Your task to perform on an android device: toggle data saver in the chrome app Image 0: 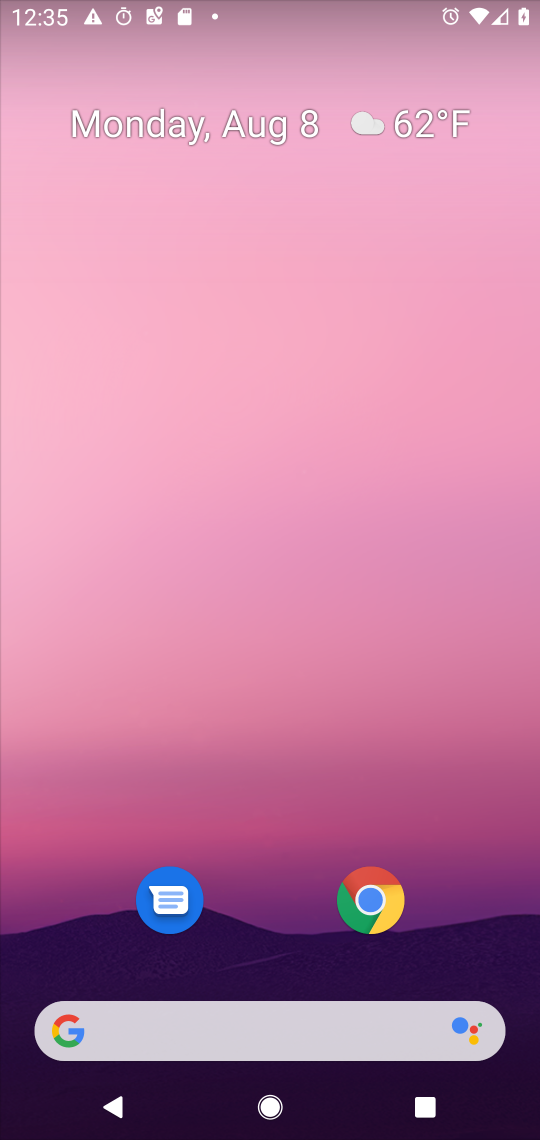
Step 0: drag from (276, 934) to (338, 267)
Your task to perform on an android device: toggle data saver in the chrome app Image 1: 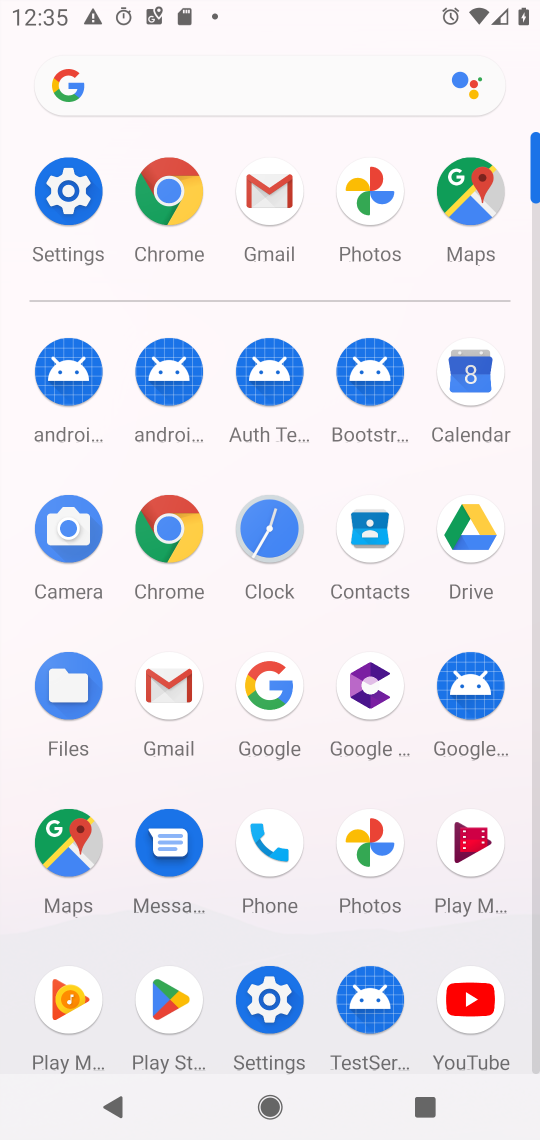
Step 1: click (284, 982)
Your task to perform on an android device: toggle data saver in the chrome app Image 2: 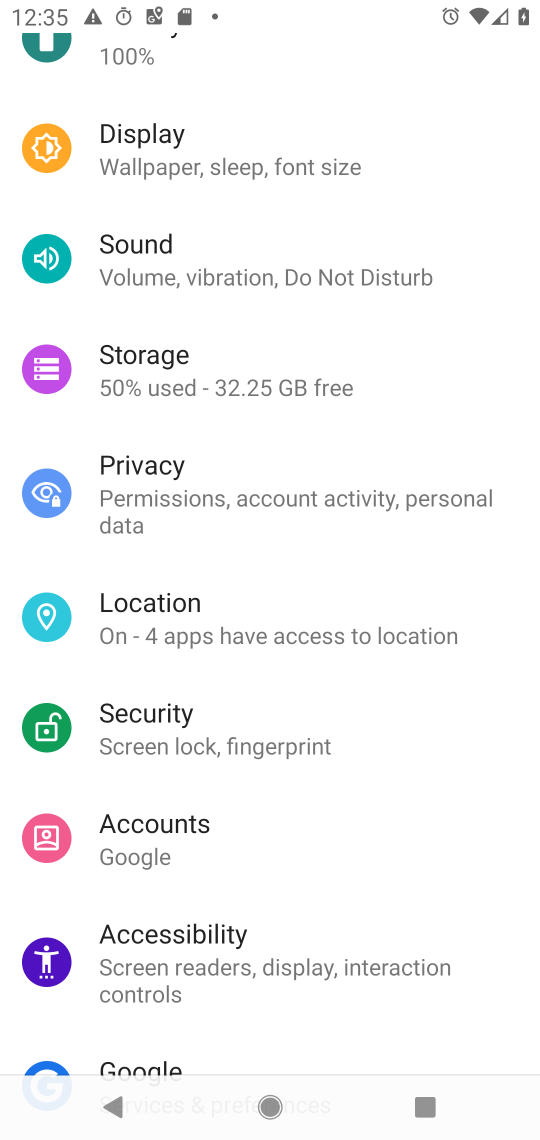
Step 2: press home button
Your task to perform on an android device: toggle data saver in the chrome app Image 3: 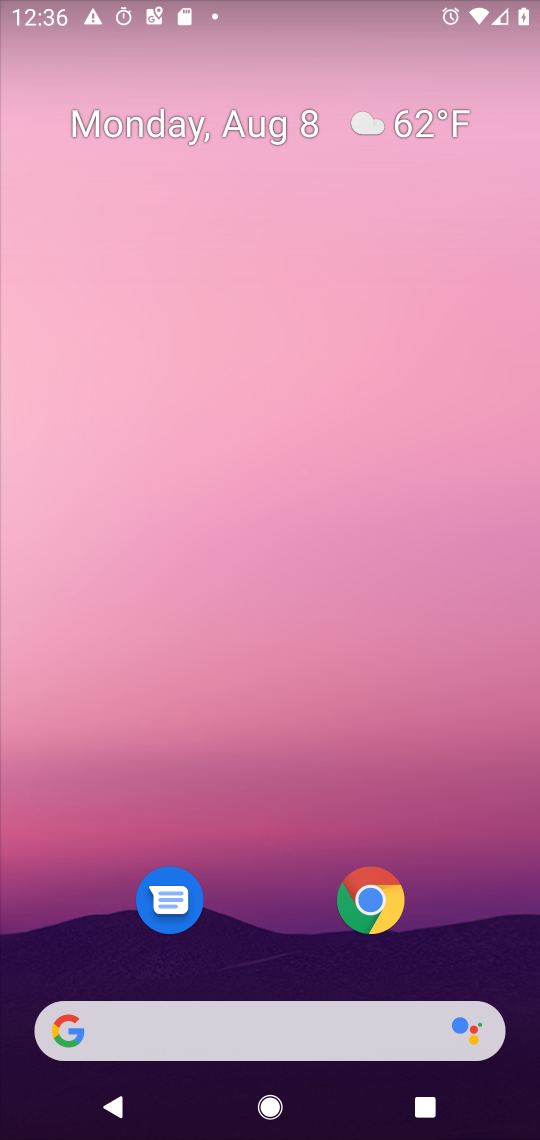
Step 3: click (360, 892)
Your task to perform on an android device: toggle data saver in the chrome app Image 4: 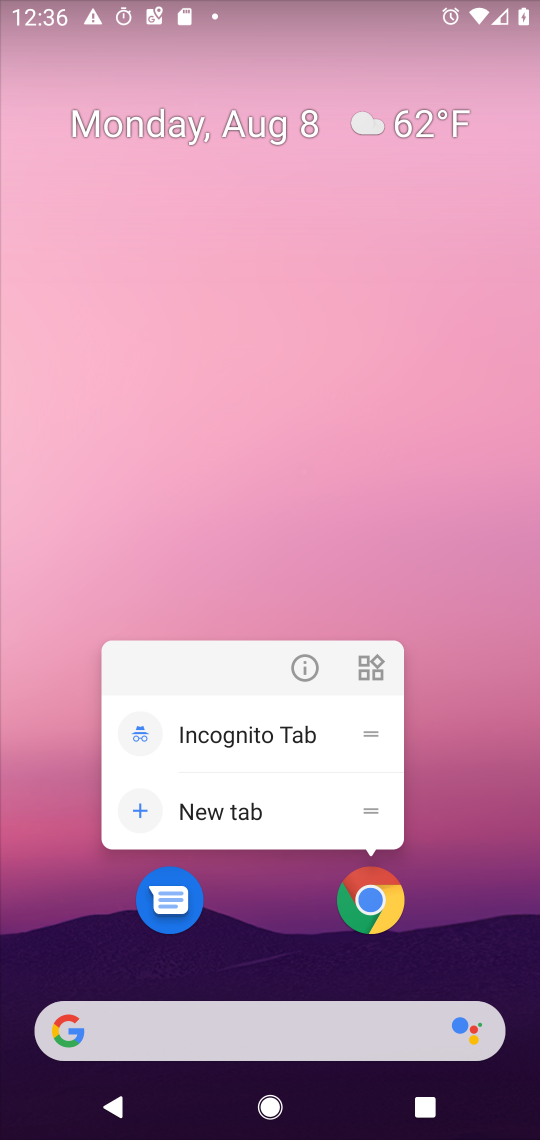
Step 4: click (417, 920)
Your task to perform on an android device: toggle data saver in the chrome app Image 5: 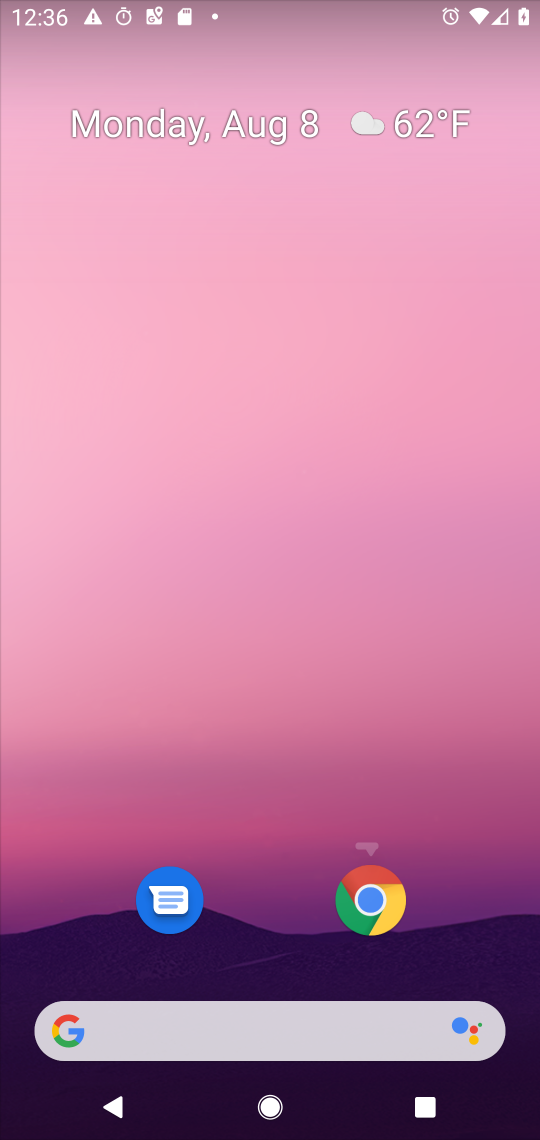
Step 5: drag from (453, 961) to (539, 130)
Your task to perform on an android device: toggle data saver in the chrome app Image 6: 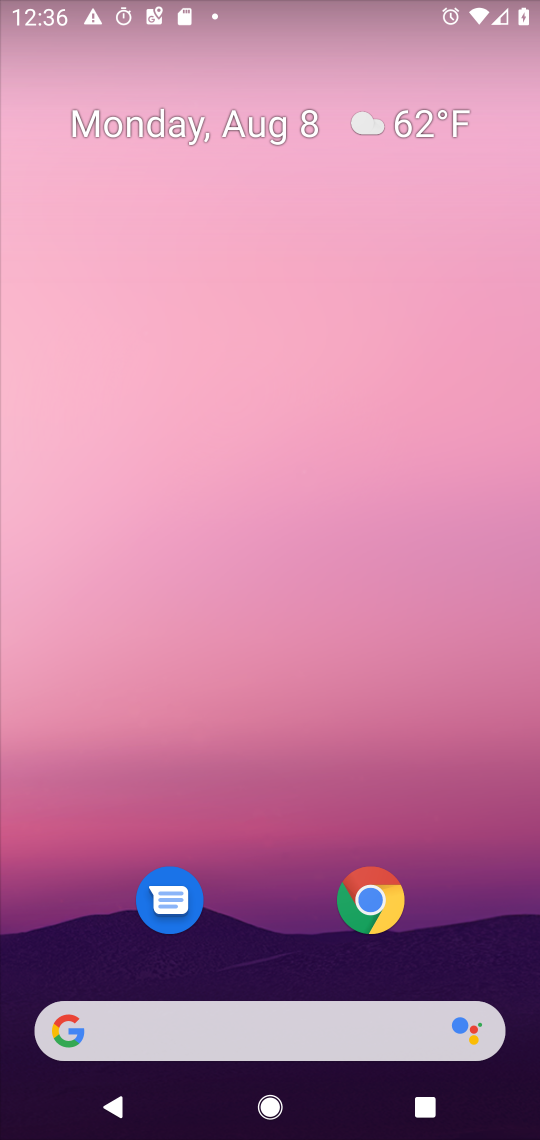
Step 6: drag from (450, 949) to (484, 44)
Your task to perform on an android device: toggle data saver in the chrome app Image 7: 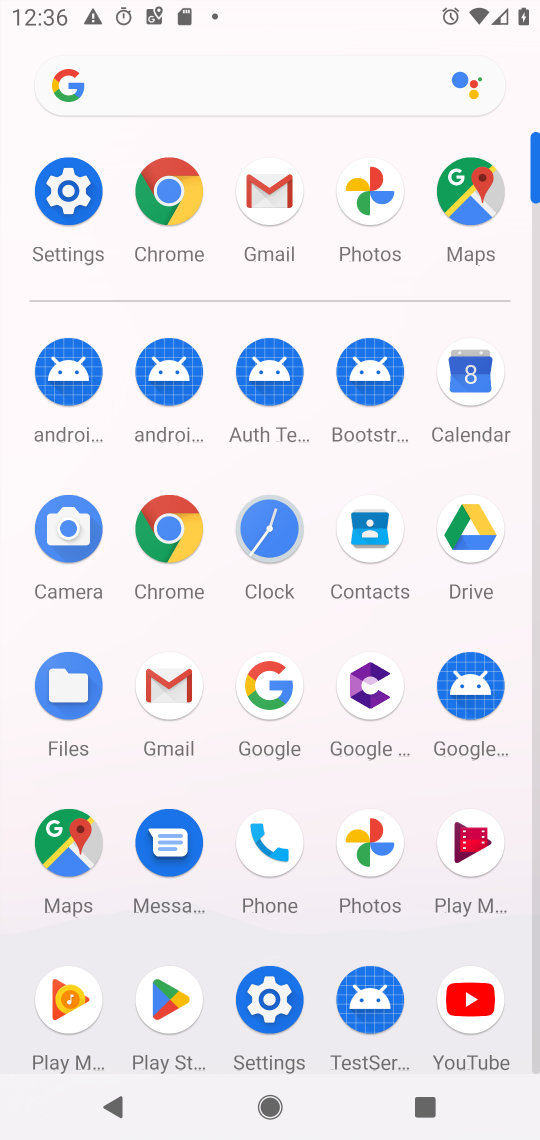
Step 7: click (166, 186)
Your task to perform on an android device: toggle data saver in the chrome app Image 8: 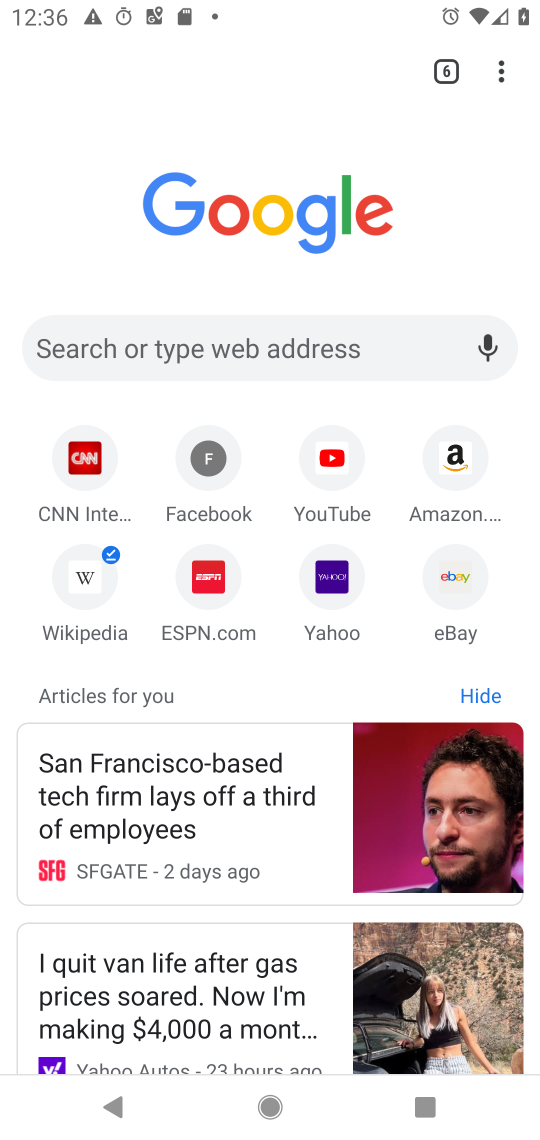
Step 8: click (504, 58)
Your task to perform on an android device: toggle data saver in the chrome app Image 9: 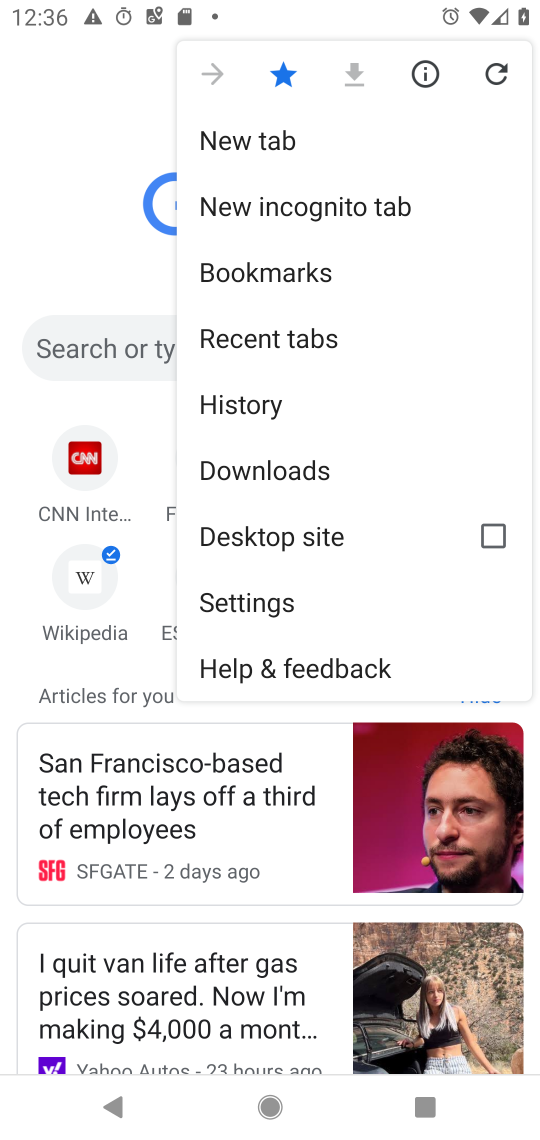
Step 9: click (307, 604)
Your task to perform on an android device: toggle data saver in the chrome app Image 10: 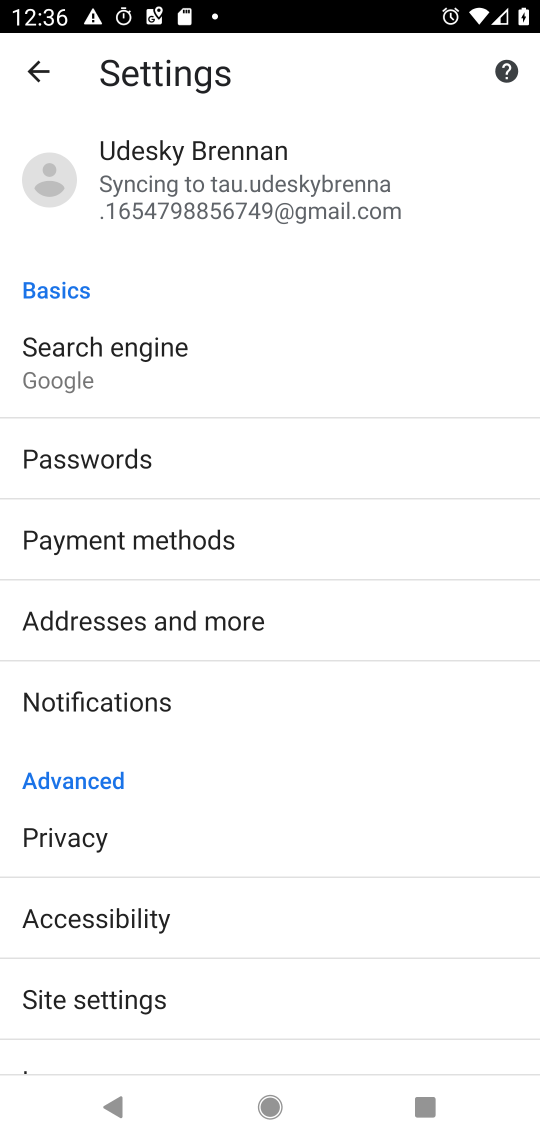
Step 10: drag from (208, 968) to (202, 249)
Your task to perform on an android device: toggle data saver in the chrome app Image 11: 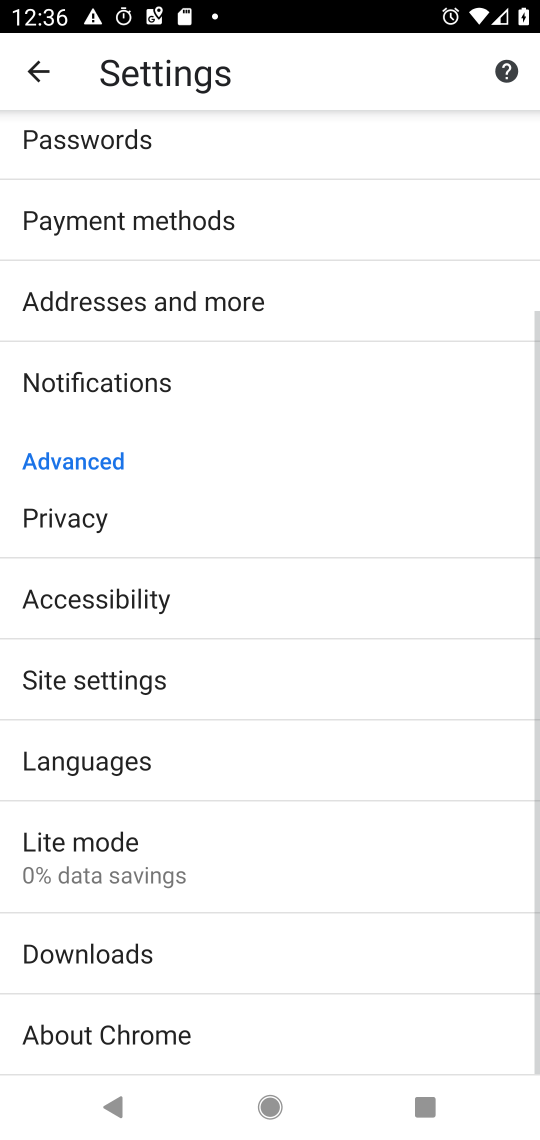
Step 11: click (149, 844)
Your task to perform on an android device: toggle data saver in the chrome app Image 12: 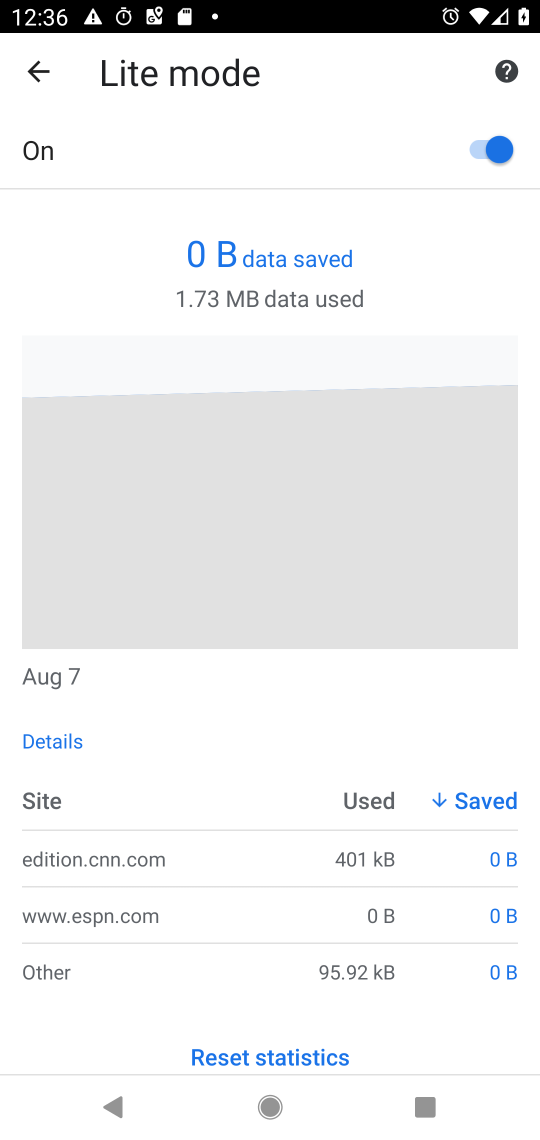
Step 12: task complete